Your task to perform on an android device: Open Maps and search for coffee Image 0: 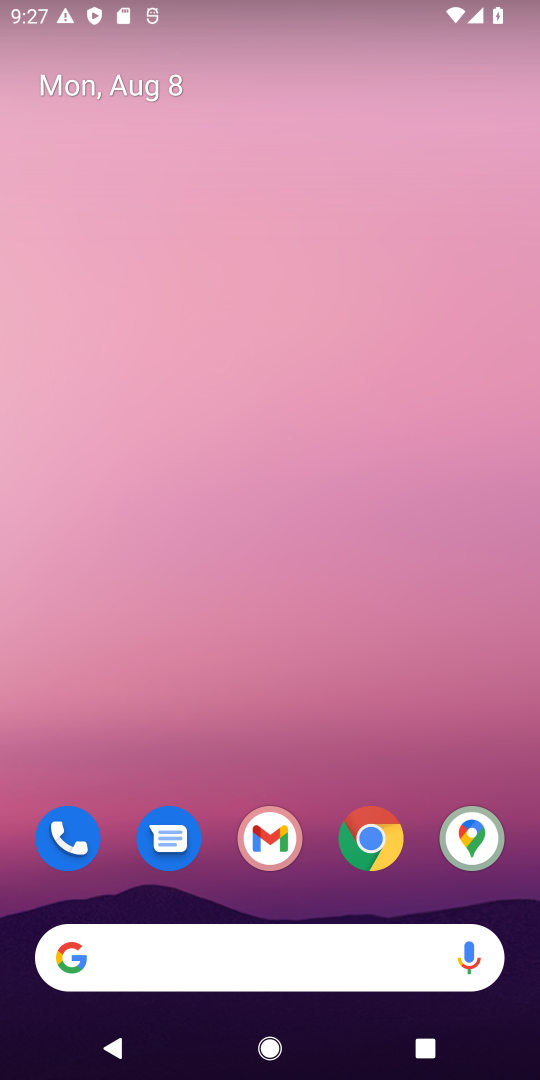
Step 0: press home button
Your task to perform on an android device: Open Maps and search for coffee Image 1: 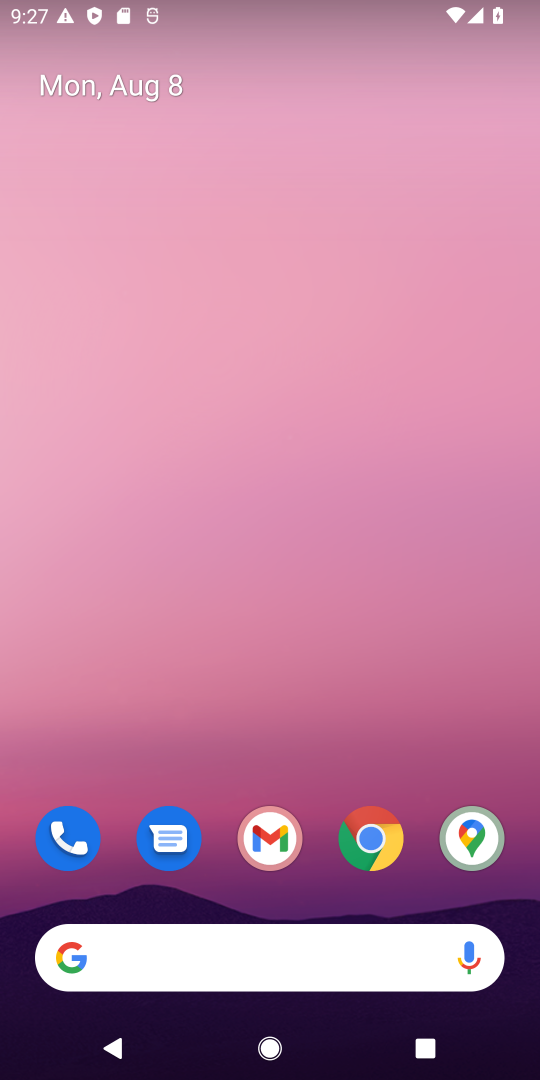
Step 1: click (479, 842)
Your task to perform on an android device: Open Maps and search for coffee Image 2: 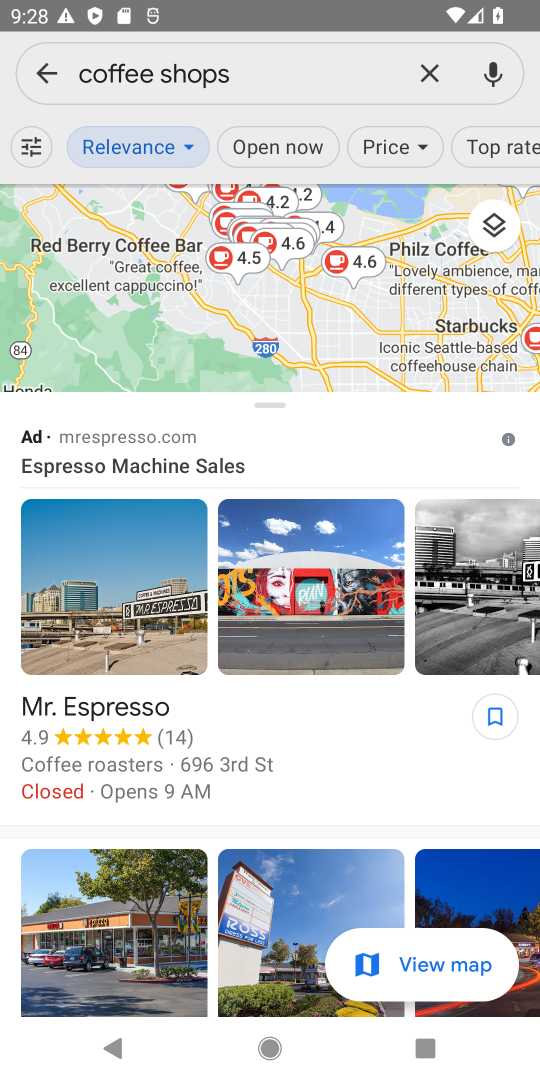
Step 2: click (430, 72)
Your task to perform on an android device: Open Maps and search for coffee Image 3: 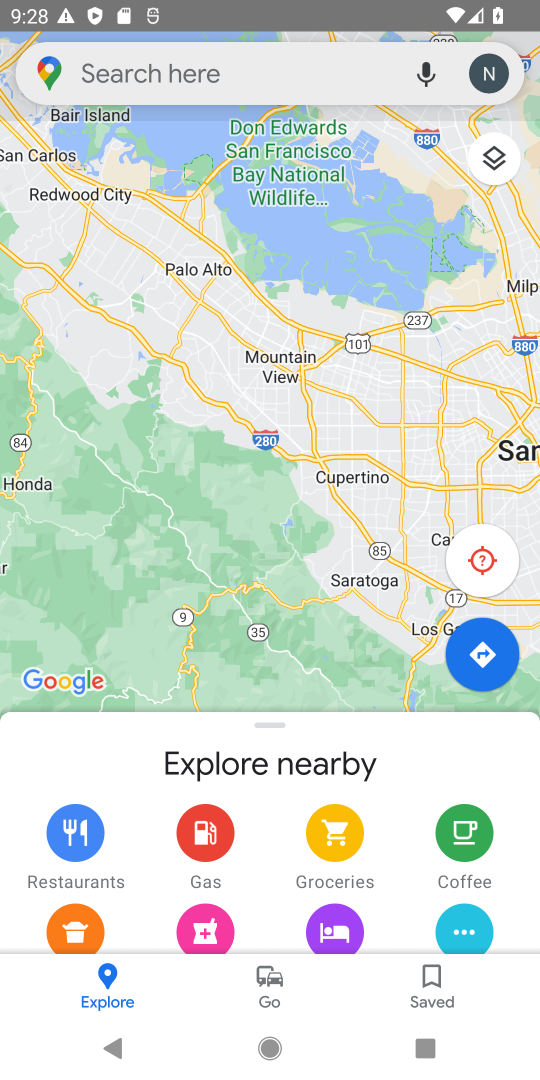
Step 3: click (188, 73)
Your task to perform on an android device: Open Maps and search for coffee Image 4: 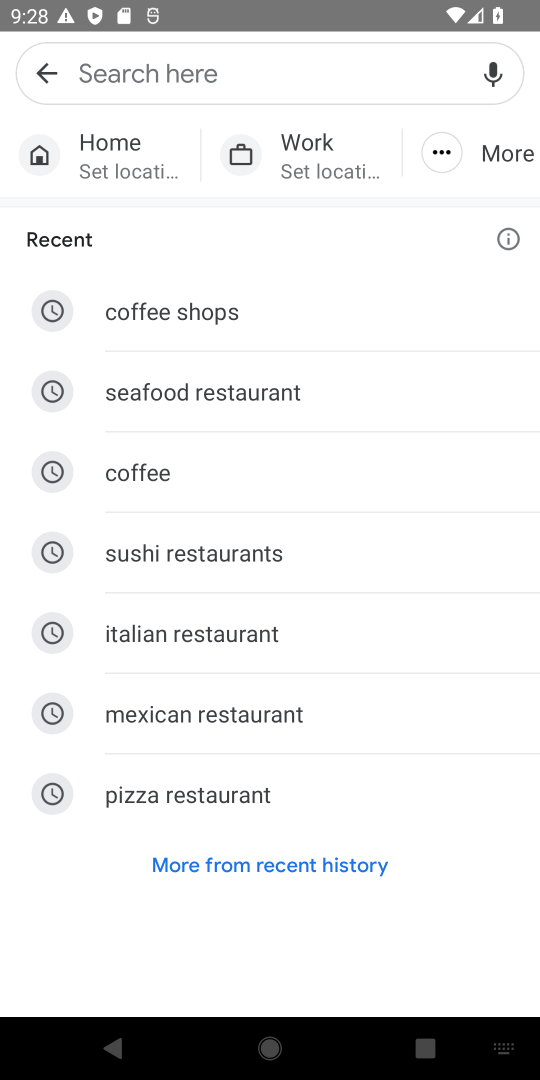
Step 4: click (114, 486)
Your task to perform on an android device: Open Maps and search for coffee Image 5: 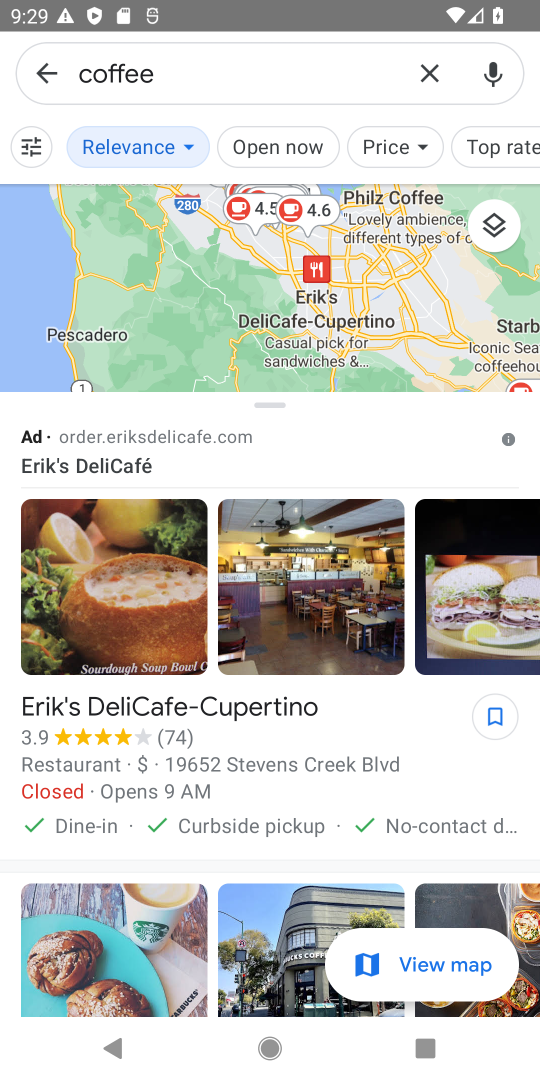
Step 5: task complete